Your task to perform on an android device: check battery use Image 0: 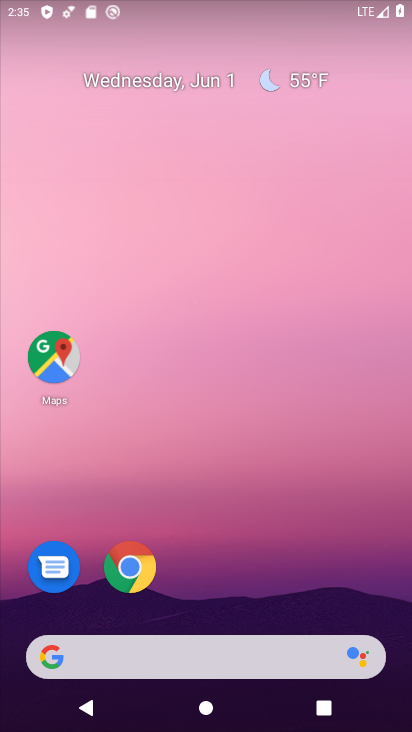
Step 0: drag from (179, 632) to (164, 62)
Your task to perform on an android device: check battery use Image 1: 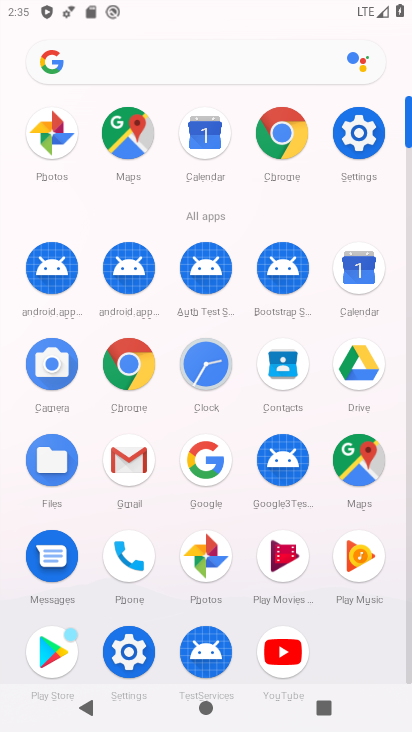
Step 1: click (354, 143)
Your task to perform on an android device: check battery use Image 2: 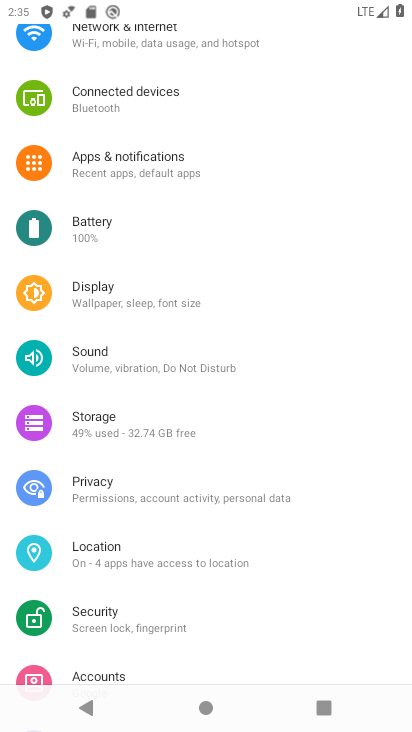
Step 2: click (108, 242)
Your task to perform on an android device: check battery use Image 3: 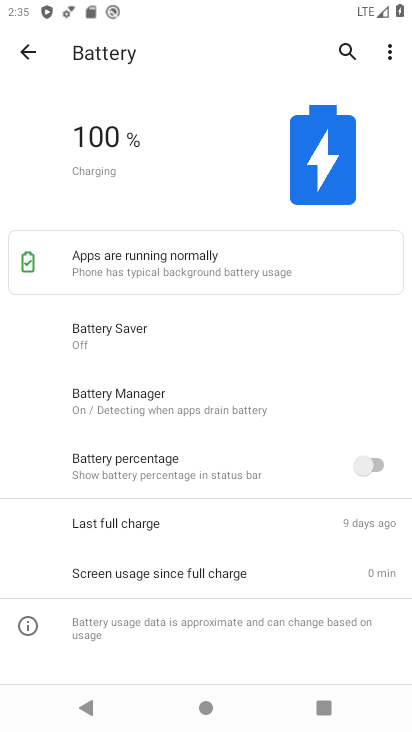
Step 3: click (392, 59)
Your task to perform on an android device: check battery use Image 4: 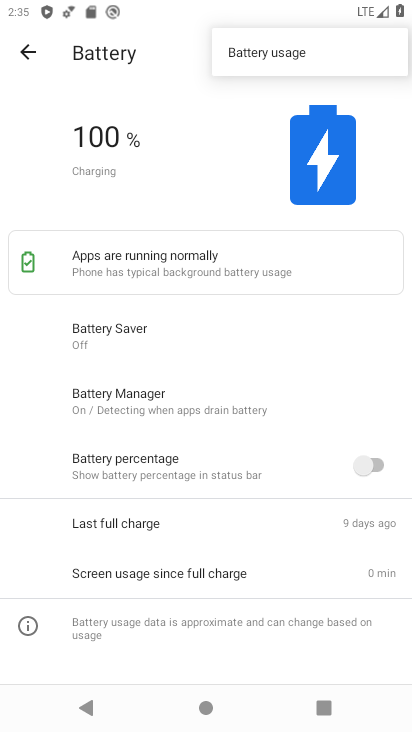
Step 4: click (293, 66)
Your task to perform on an android device: check battery use Image 5: 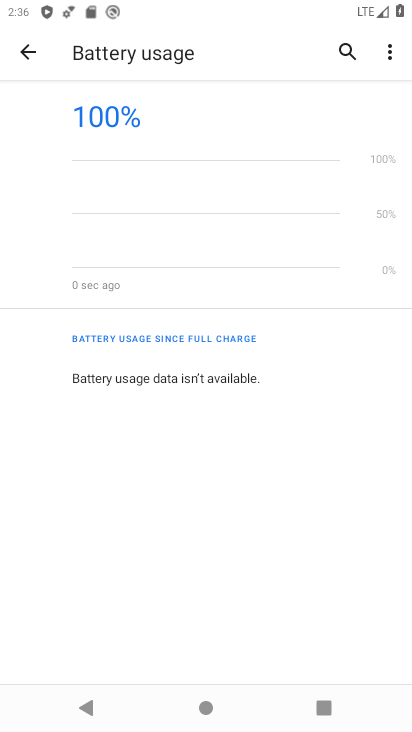
Step 5: task complete